Your task to perform on an android device: What is the recent news? Image 0: 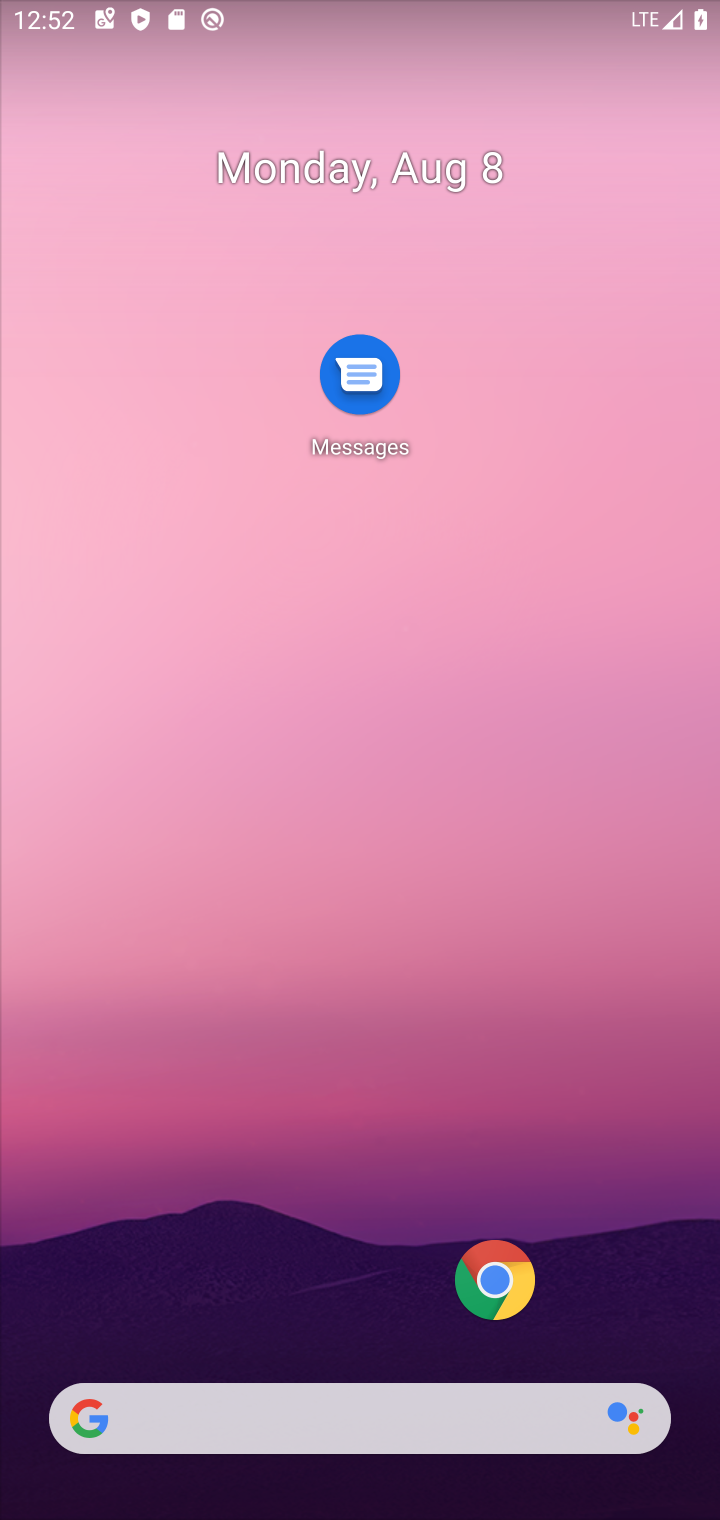
Step 0: click (232, 1410)
Your task to perform on an android device: What is the recent news? Image 1: 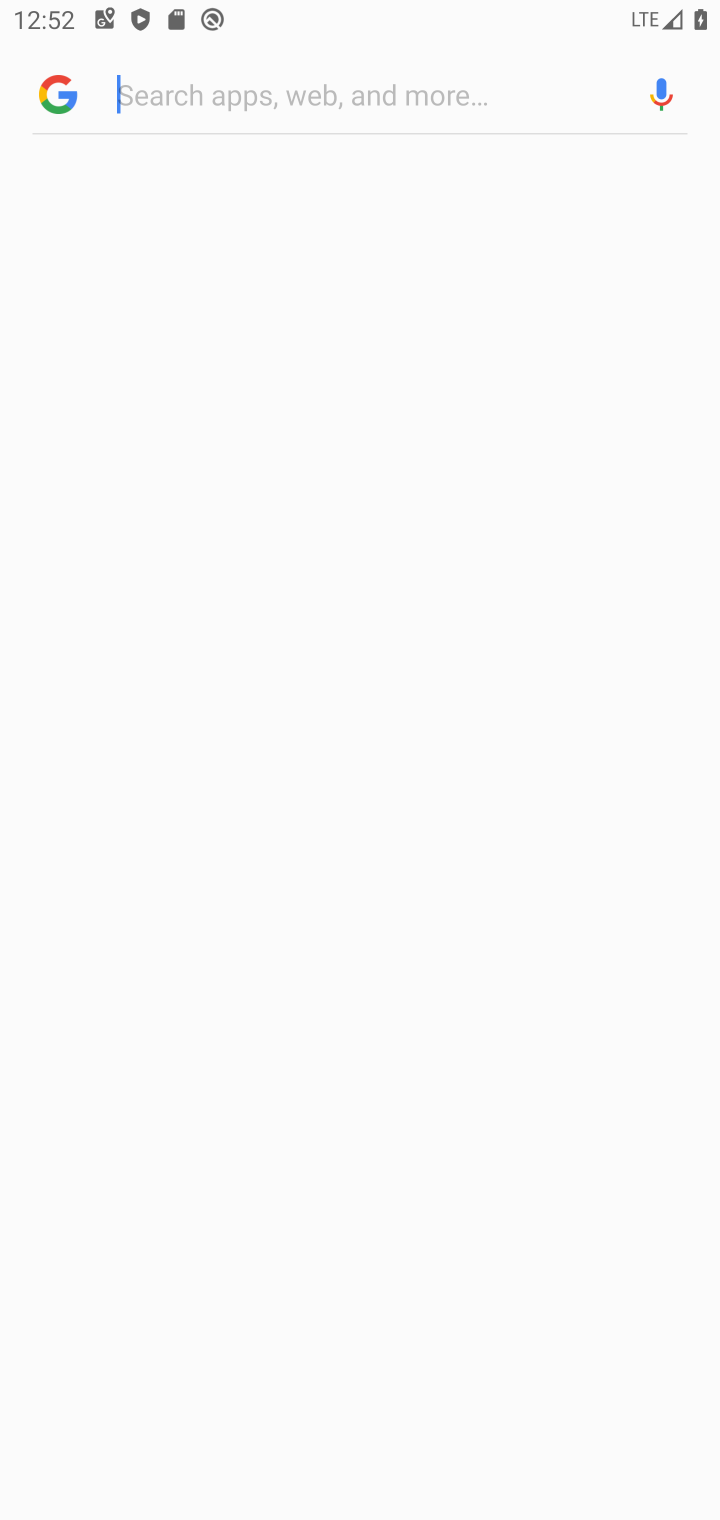
Step 1: click (355, 1437)
Your task to perform on an android device: What is the recent news? Image 2: 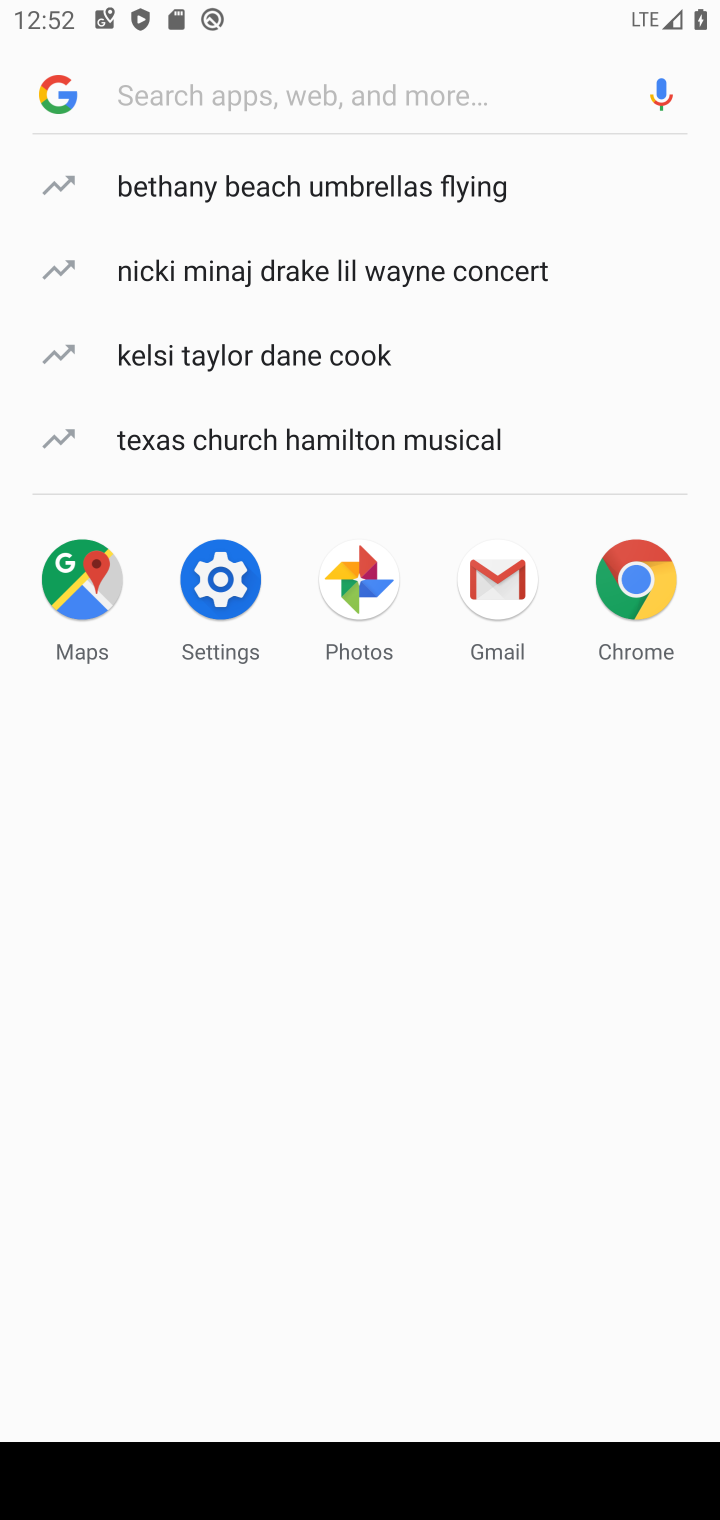
Step 2: click (184, 87)
Your task to perform on an android device: What is the recent news? Image 3: 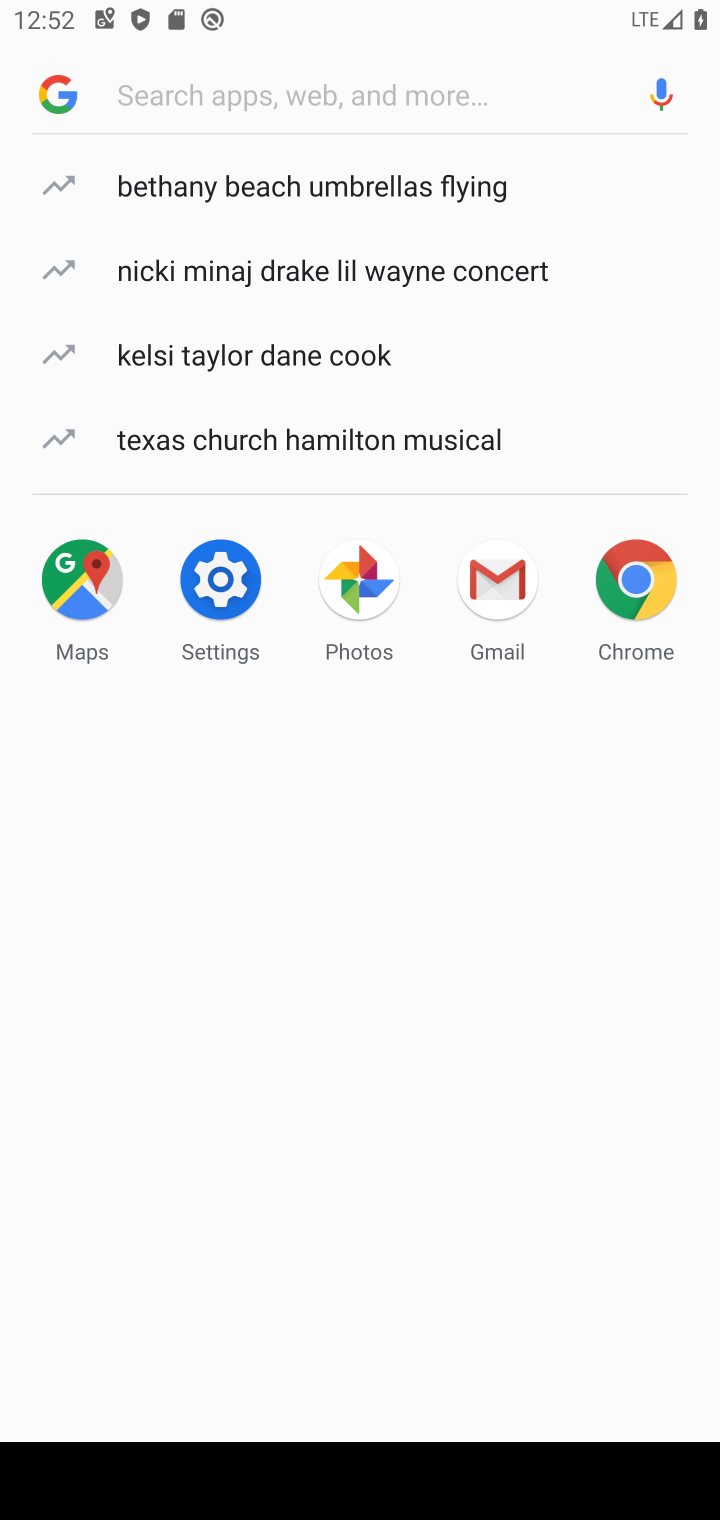
Step 3: type "recent news"
Your task to perform on an android device: What is the recent news? Image 4: 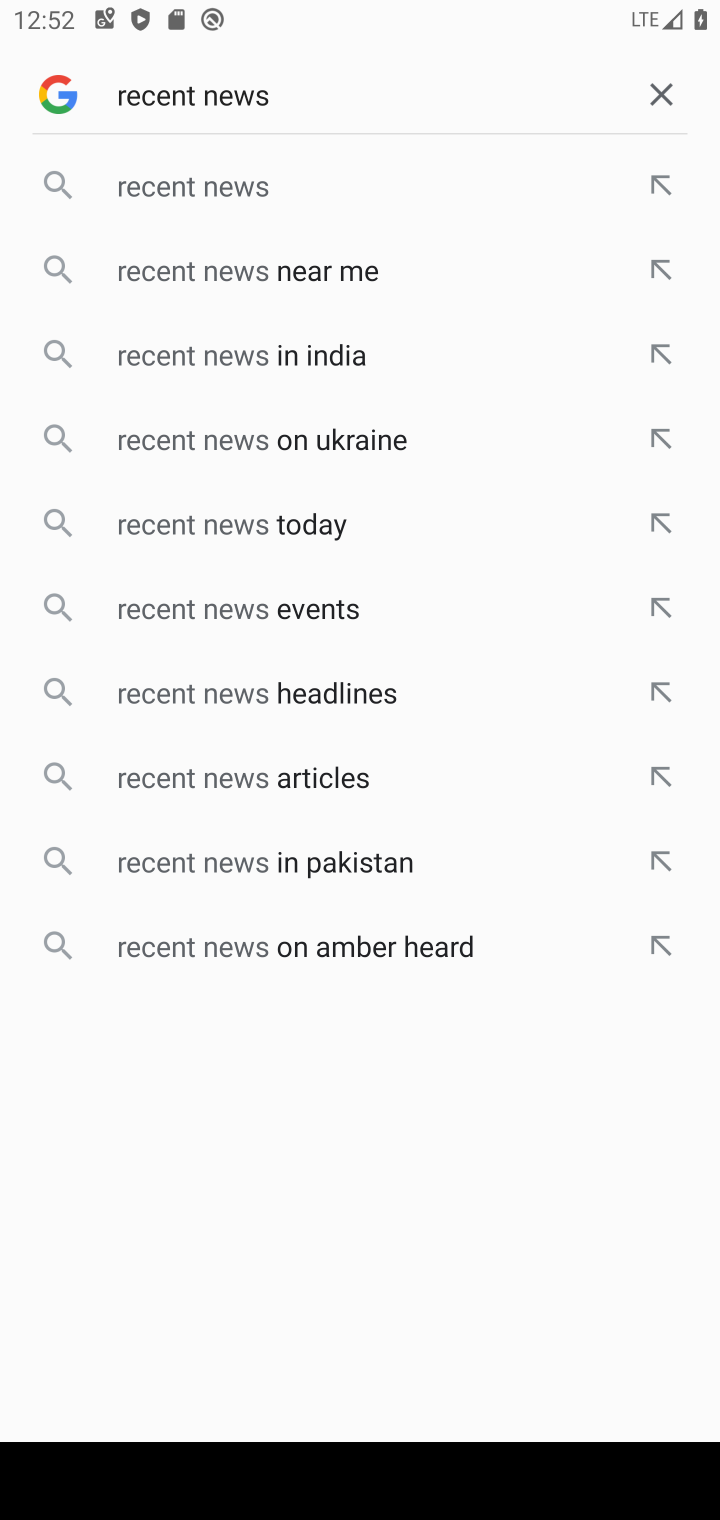
Step 4: click (180, 156)
Your task to perform on an android device: What is the recent news? Image 5: 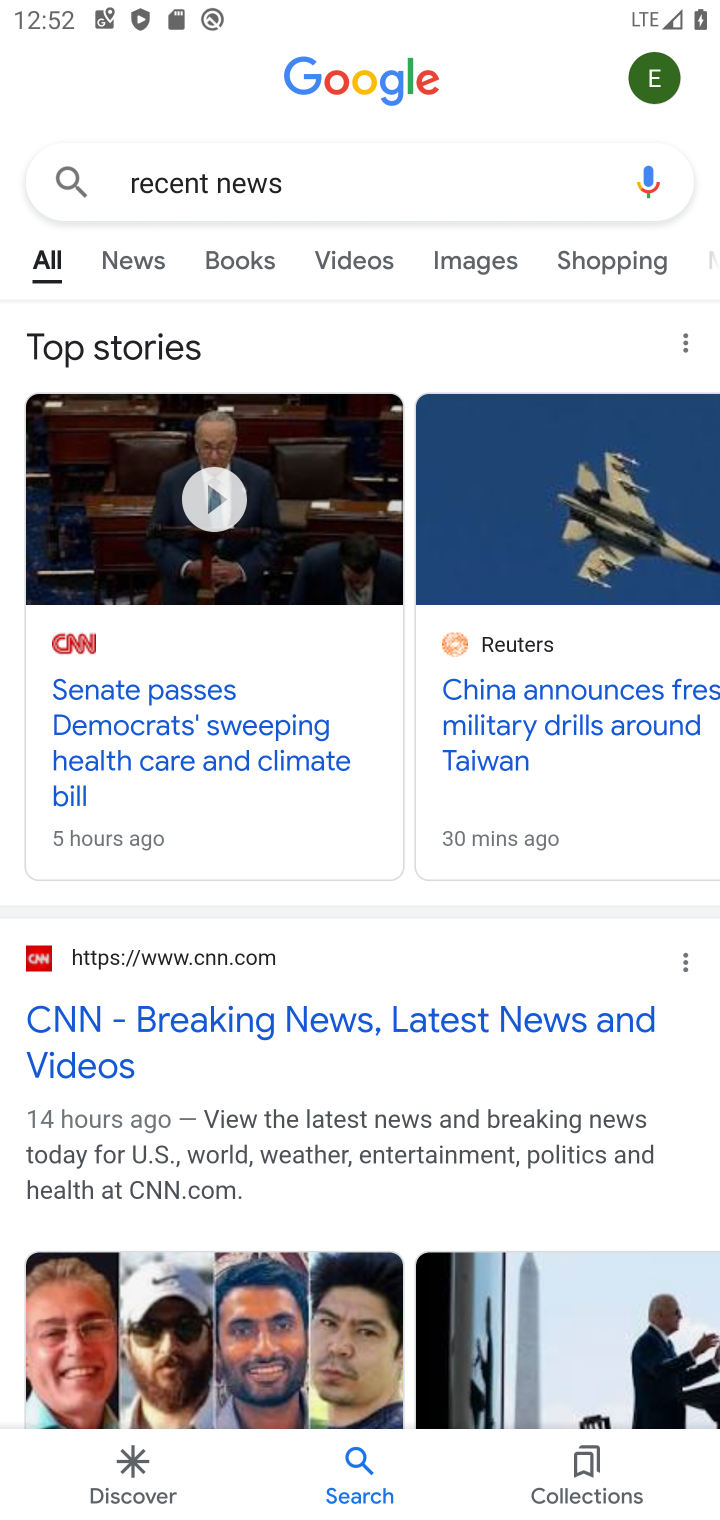
Step 5: task complete